Your task to perform on an android device: Open the calendar and show me this week's events? Image 0: 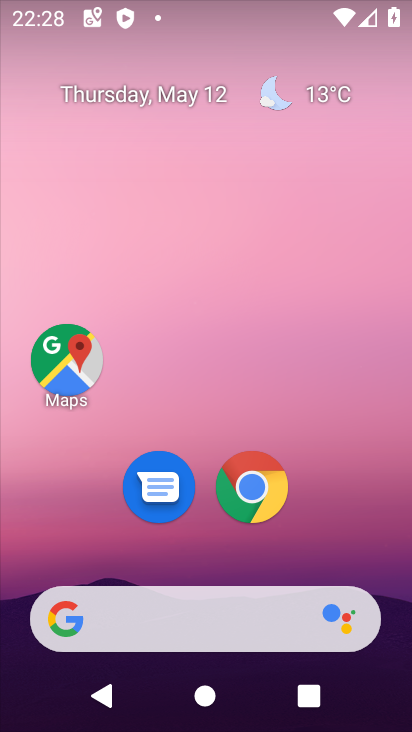
Step 0: click (147, 89)
Your task to perform on an android device: Open the calendar and show me this week's events? Image 1: 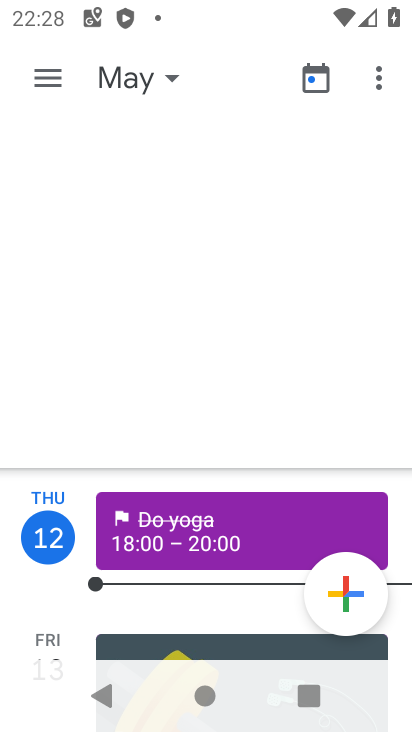
Step 1: task complete